Your task to perform on an android device: Open eBay Image 0: 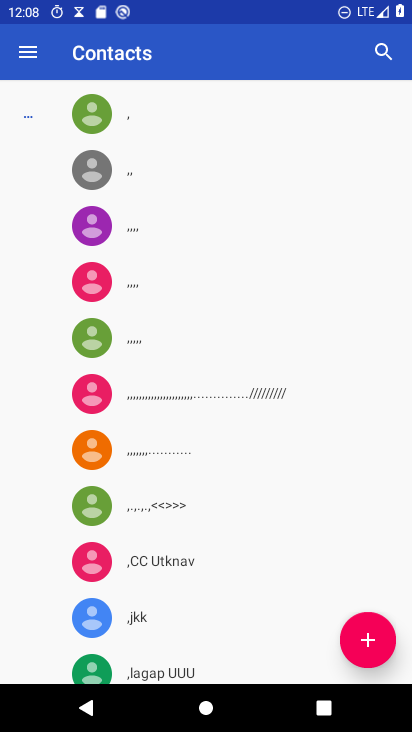
Step 0: press home button
Your task to perform on an android device: Open eBay Image 1: 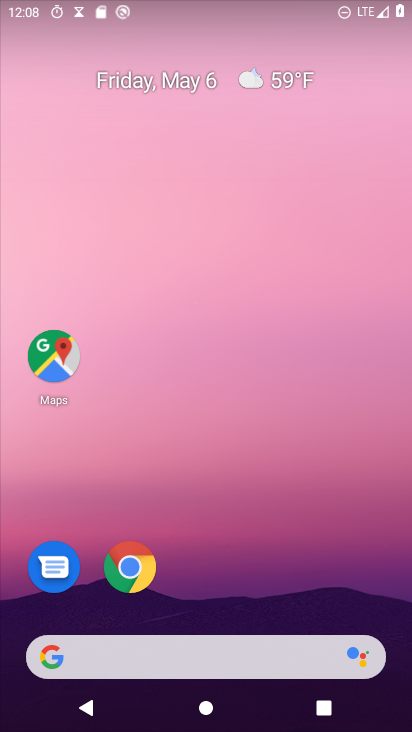
Step 1: click (134, 579)
Your task to perform on an android device: Open eBay Image 2: 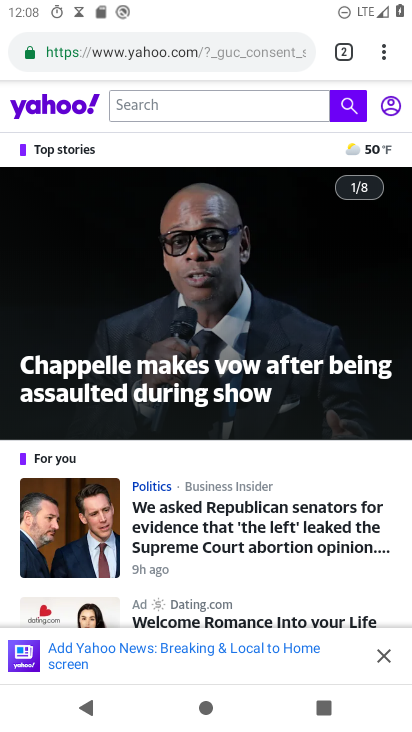
Step 2: click (122, 52)
Your task to perform on an android device: Open eBay Image 3: 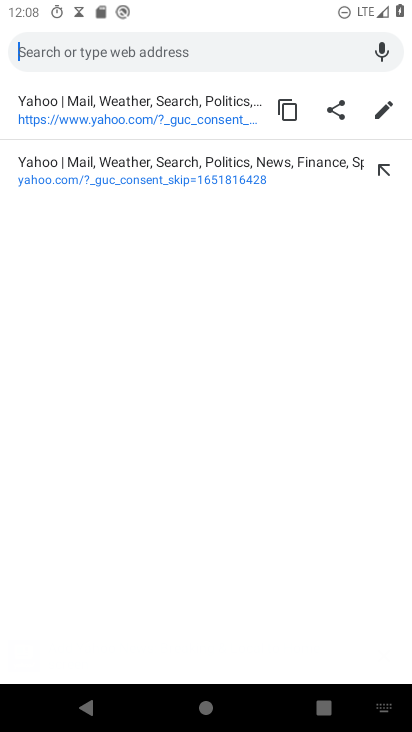
Step 3: type "ebay"
Your task to perform on an android device: Open eBay Image 4: 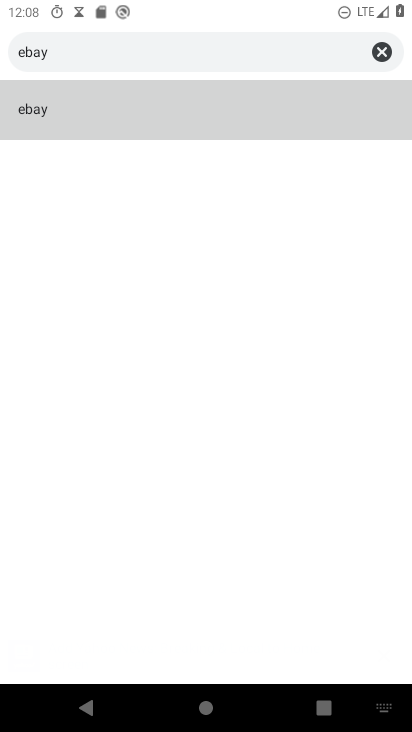
Step 4: click (41, 115)
Your task to perform on an android device: Open eBay Image 5: 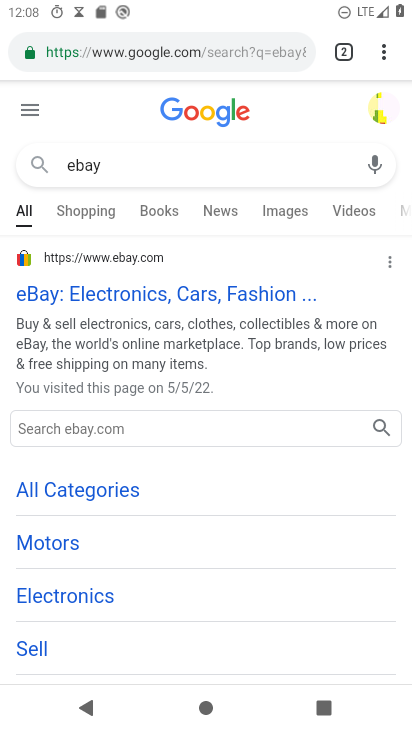
Step 5: click (63, 296)
Your task to perform on an android device: Open eBay Image 6: 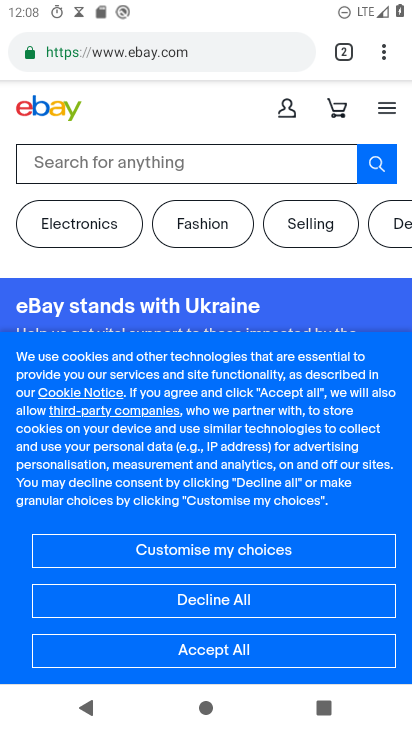
Step 6: task complete